Your task to perform on an android device: Open Amazon Image 0: 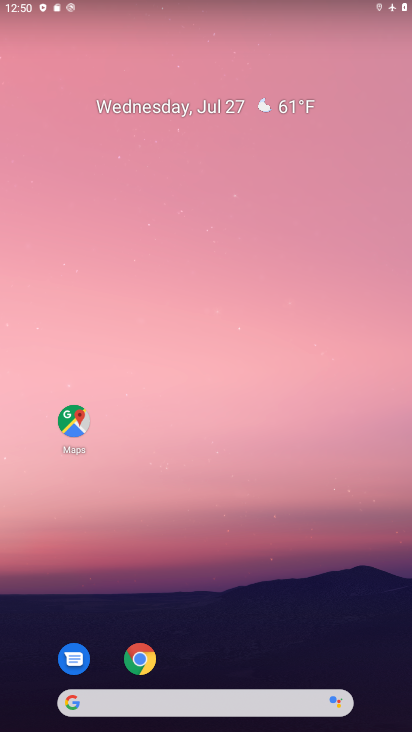
Step 0: click (147, 647)
Your task to perform on an android device: Open Amazon Image 1: 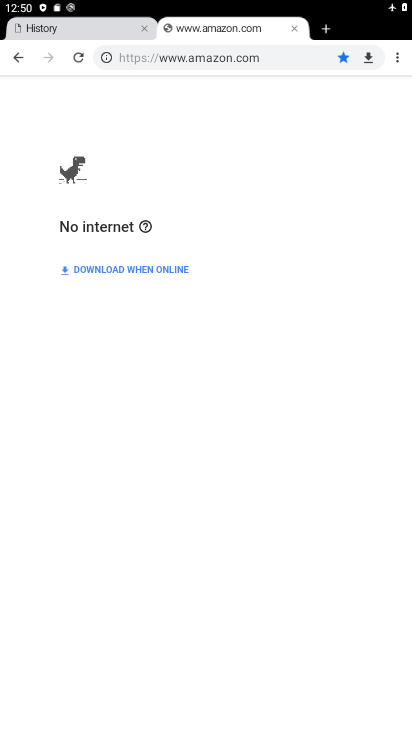
Step 1: click (329, 29)
Your task to perform on an android device: Open Amazon Image 2: 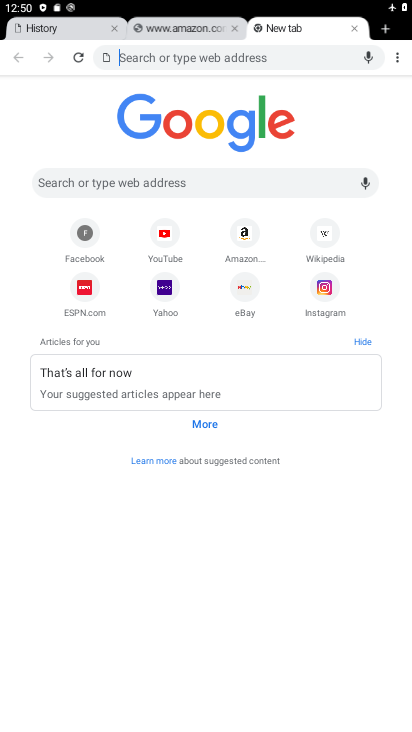
Step 2: click (242, 240)
Your task to perform on an android device: Open Amazon Image 3: 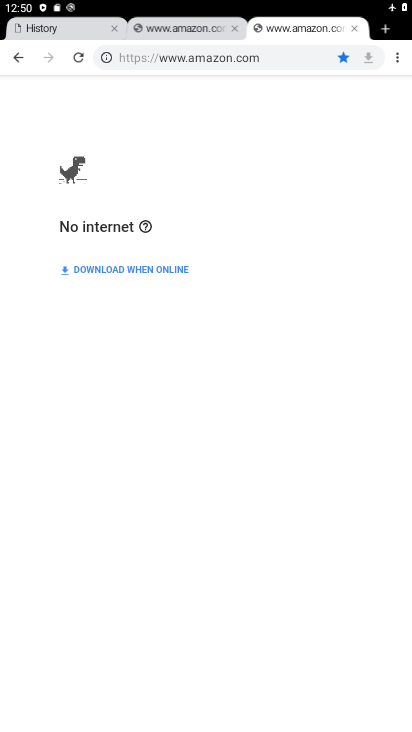
Step 3: task complete